Your task to perform on an android device: Clear the cart on target. Search for "dell xps" on target, select the first entry, add it to the cart, then select checkout. Image 0: 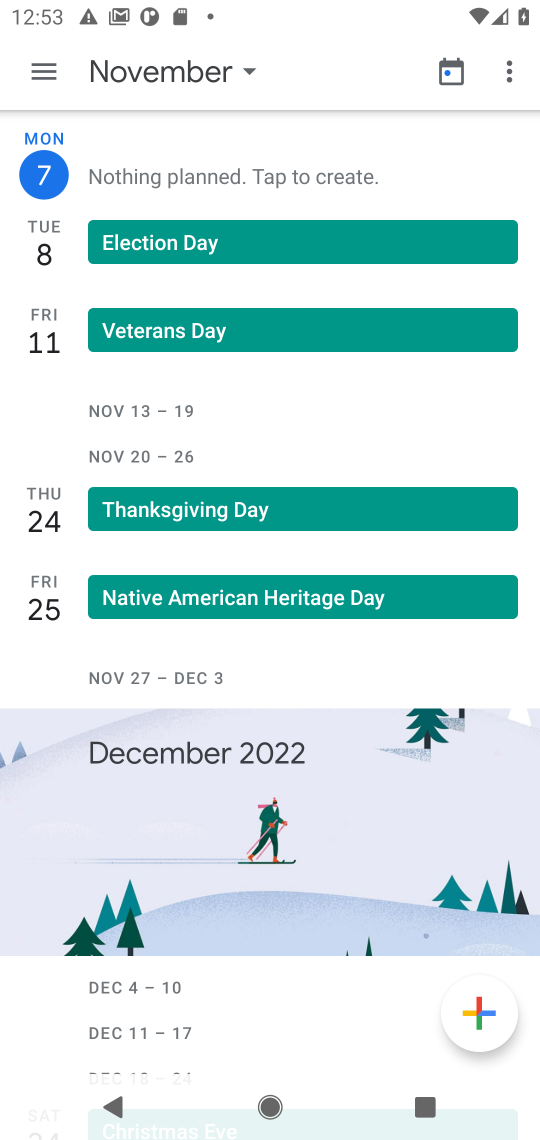
Step 0: press home button
Your task to perform on an android device: Clear the cart on target. Search for "dell xps" on target, select the first entry, add it to the cart, then select checkout. Image 1: 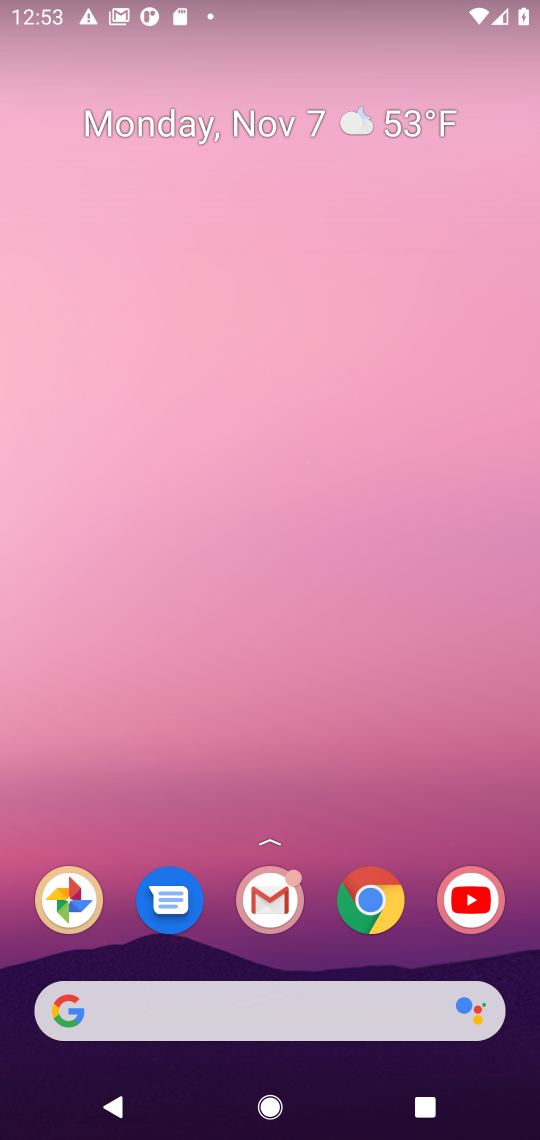
Step 1: click (166, 1010)
Your task to perform on an android device: Clear the cart on target. Search for "dell xps" on target, select the first entry, add it to the cart, then select checkout. Image 2: 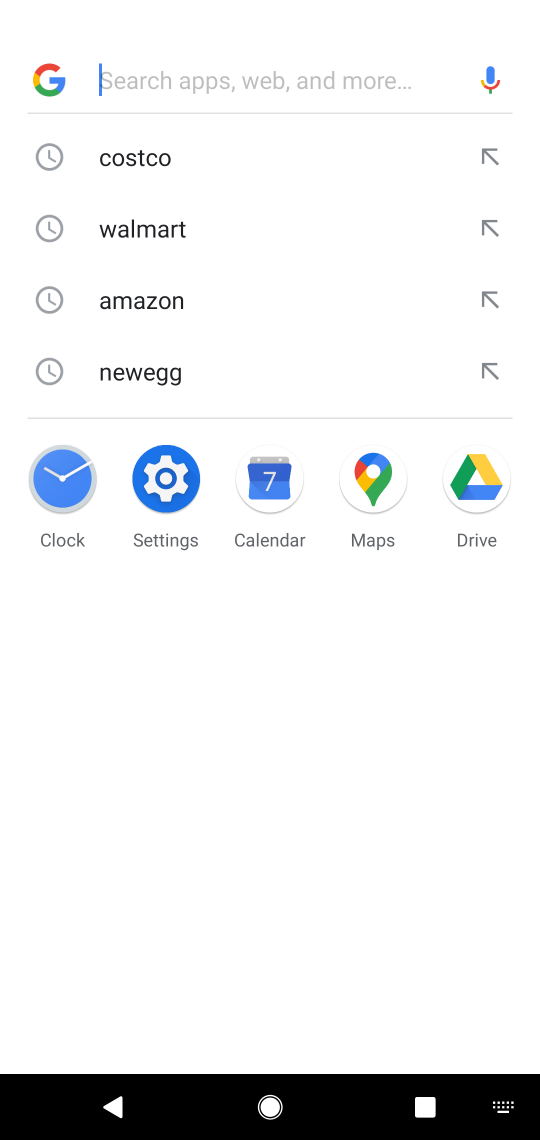
Step 2: type "target"
Your task to perform on an android device: Clear the cart on target. Search for "dell xps" on target, select the first entry, add it to the cart, then select checkout. Image 3: 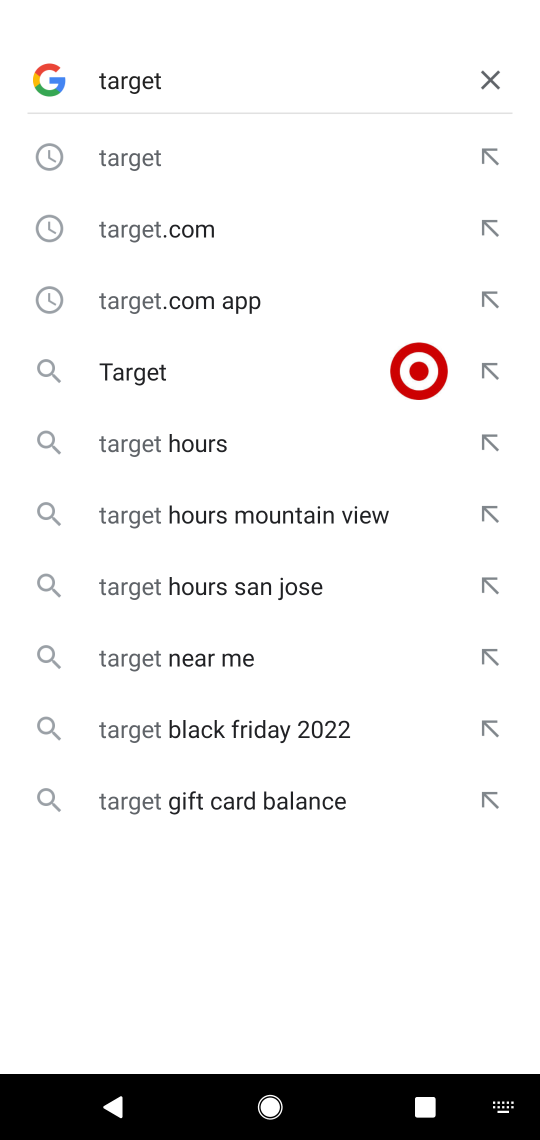
Step 3: click (319, 367)
Your task to perform on an android device: Clear the cart on target. Search for "dell xps" on target, select the first entry, add it to the cart, then select checkout. Image 4: 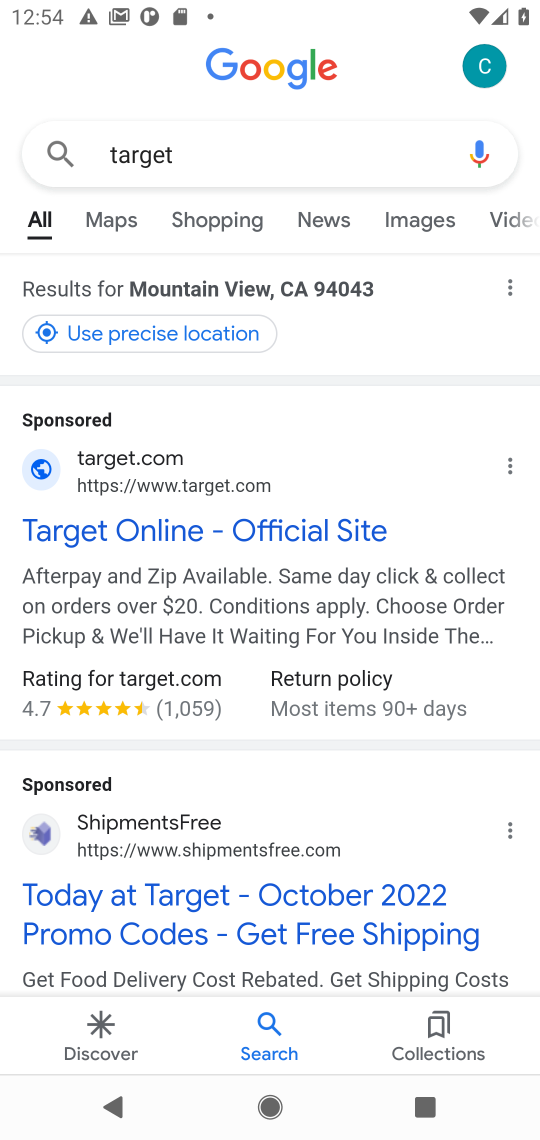
Step 4: click (128, 512)
Your task to perform on an android device: Clear the cart on target. Search for "dell xps" on target, select the first entry, add it to the cart, then select checkout. Image 5: 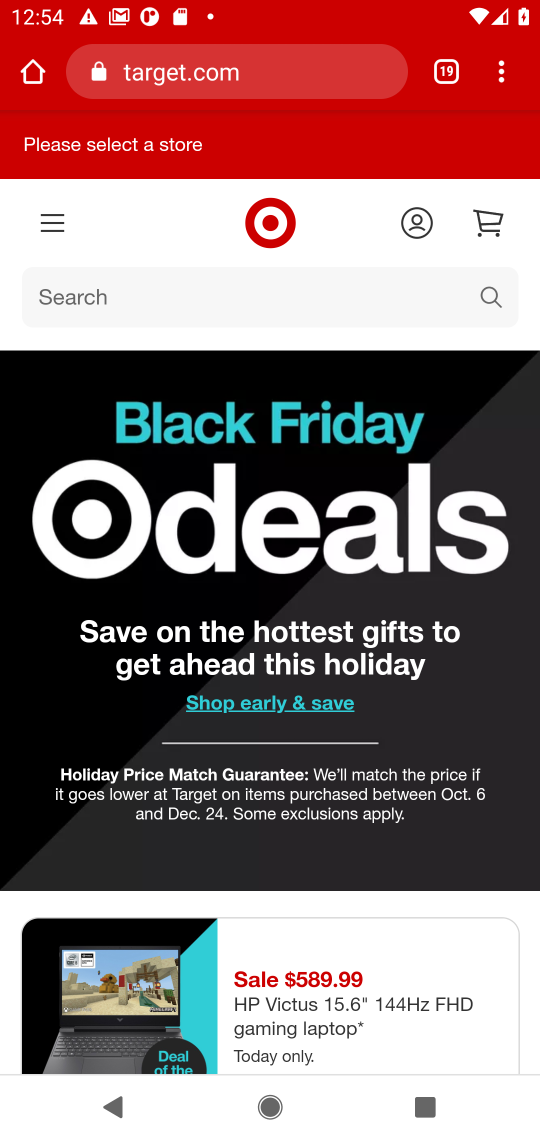
Step 5: task complete